Your task to perform on an android device: Do I have any events today? Image 0: 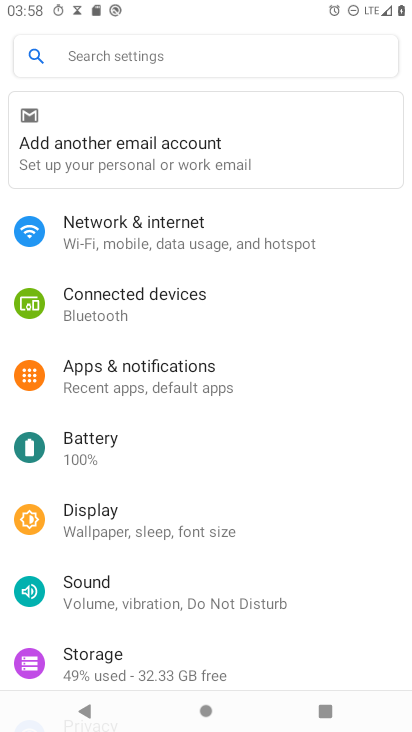
Step 0: press home button
Your task to perform on an android device: Do I have any events today? Image 1: 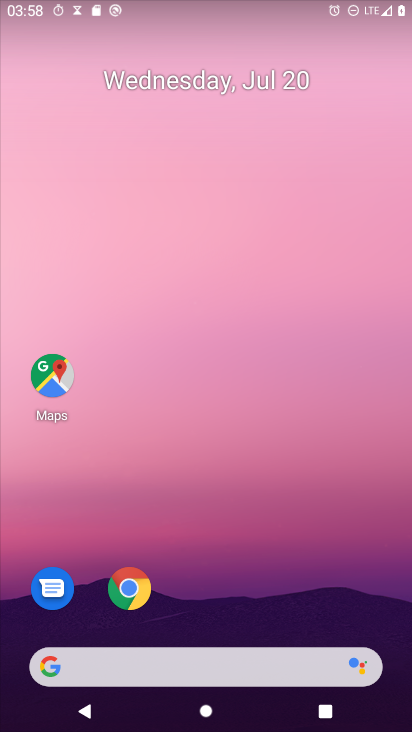
Step 1: click (209, 649)
Your task to perform on an android device: Do I have any events today? Image 2: 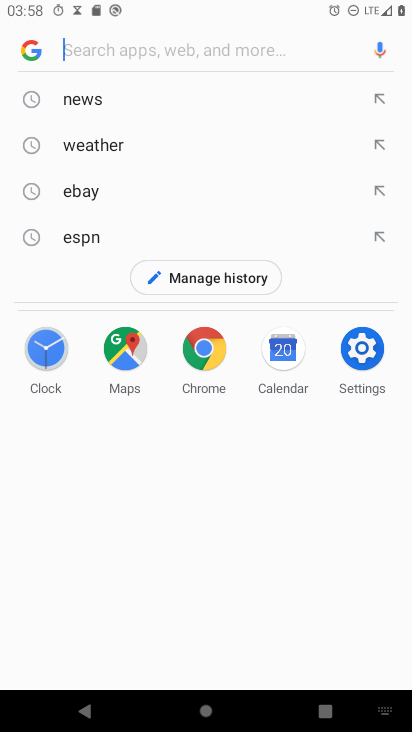
Step 2: press home button
Your task to perform on an android device: Do I have any events today? Image 3: 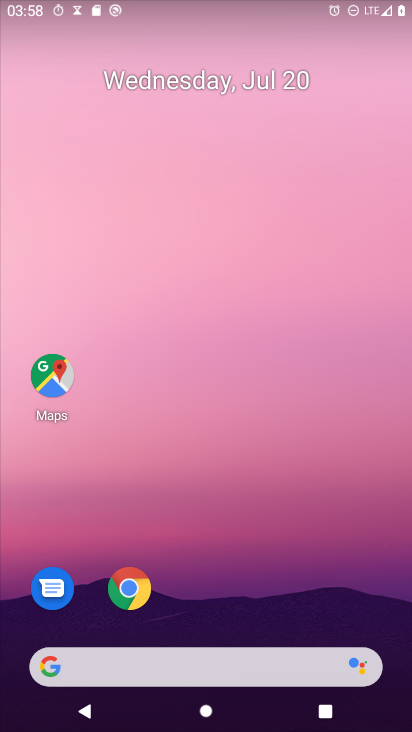
Step 3: drag from (186, 605) to (72, 39)
Your task to perform on an android device: Do I have any events today? Image 4: 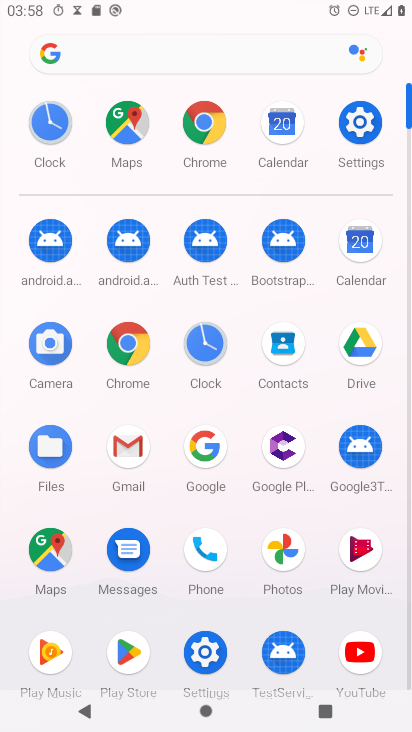
Step 4: click (367, 245)
Your task to perform on an android device: Do I have any events today? Image 5: 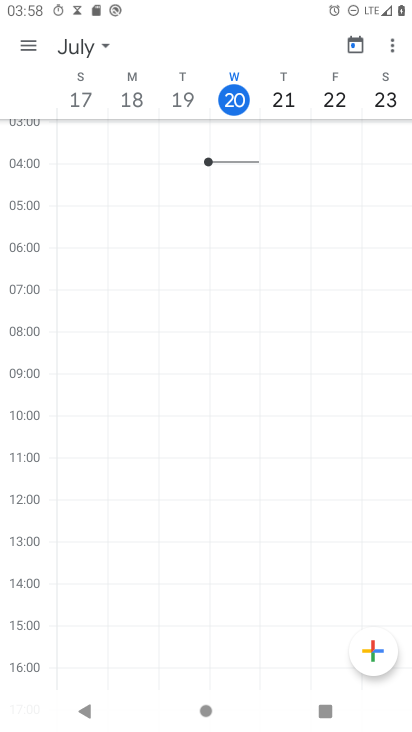
Step 5: click (231, 100)
Your task to perform on an android device: Do I have any events today? Image 6: 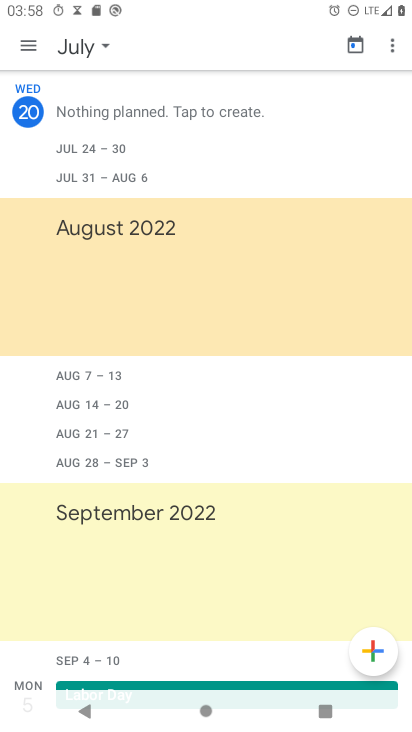
Step 6: task complete